Your task to perform on an android device: Search for the best deal on a 3d printer on aliexpress Image 0: 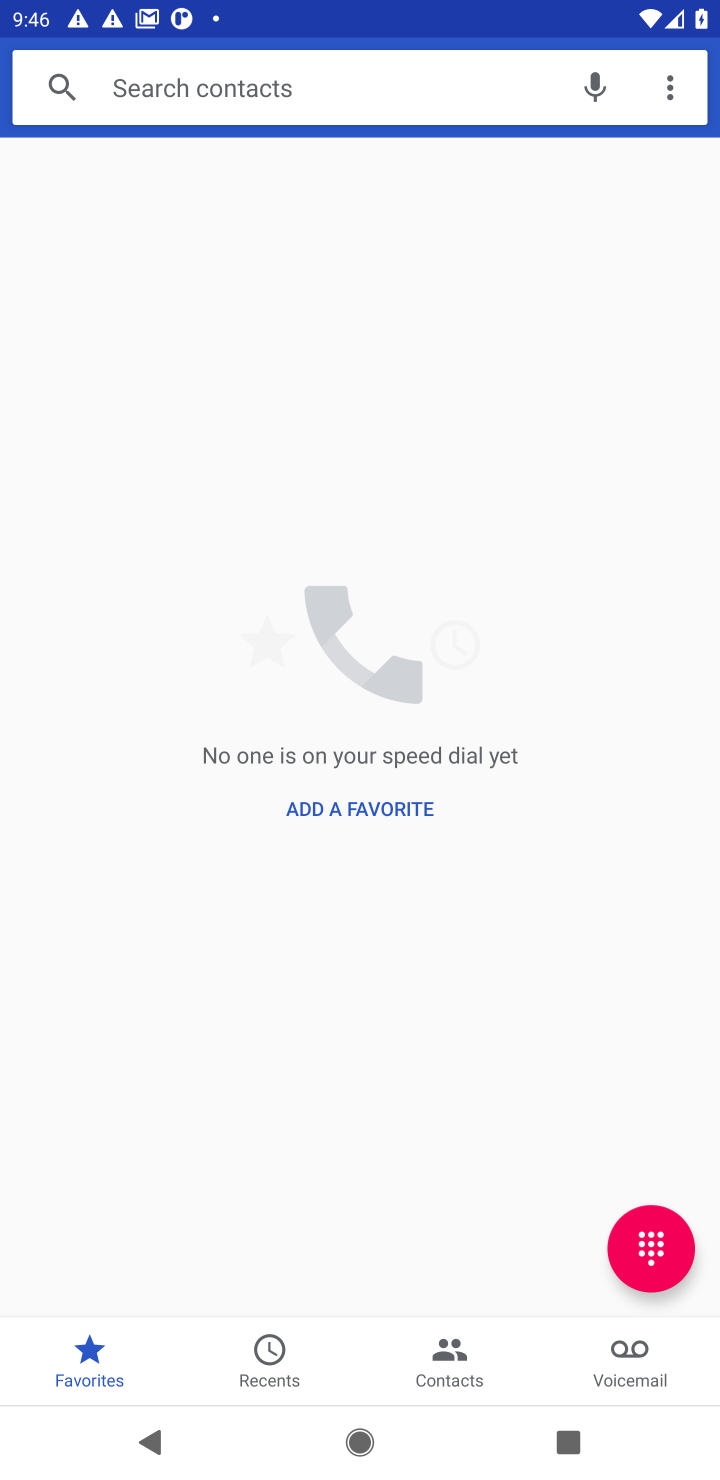
Step 0: press home button
Your task to perform on an android device: Search for the best deal on a 3d printer on aliexpress Image 1: 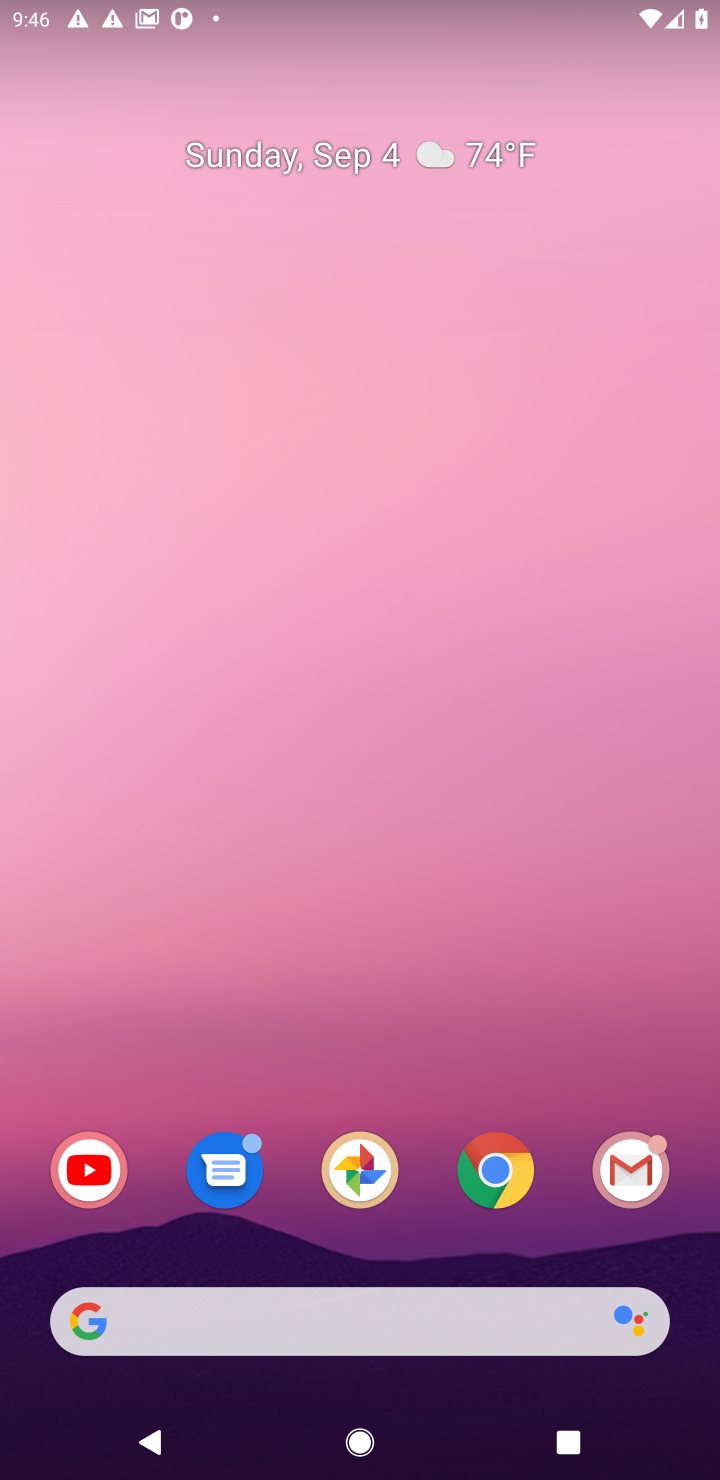
Step 1: click (485, 1167)
Your task to perform on an android device: Search for the best deal on a 3d printer on aliexpress Image 2: 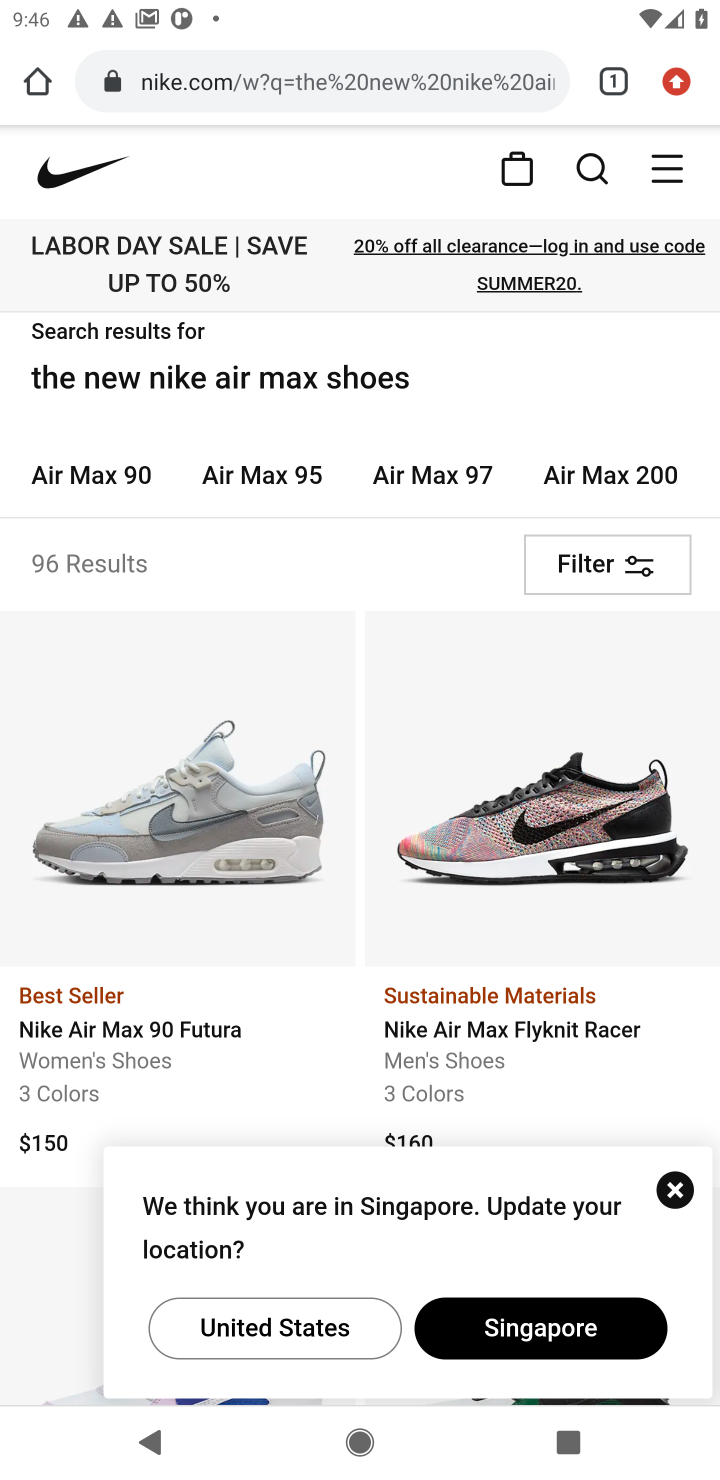
Step 2: click (284, 85)
Your task to perform on an android device: Search for the best deal on a 3d printer on aliexpress Image 3: 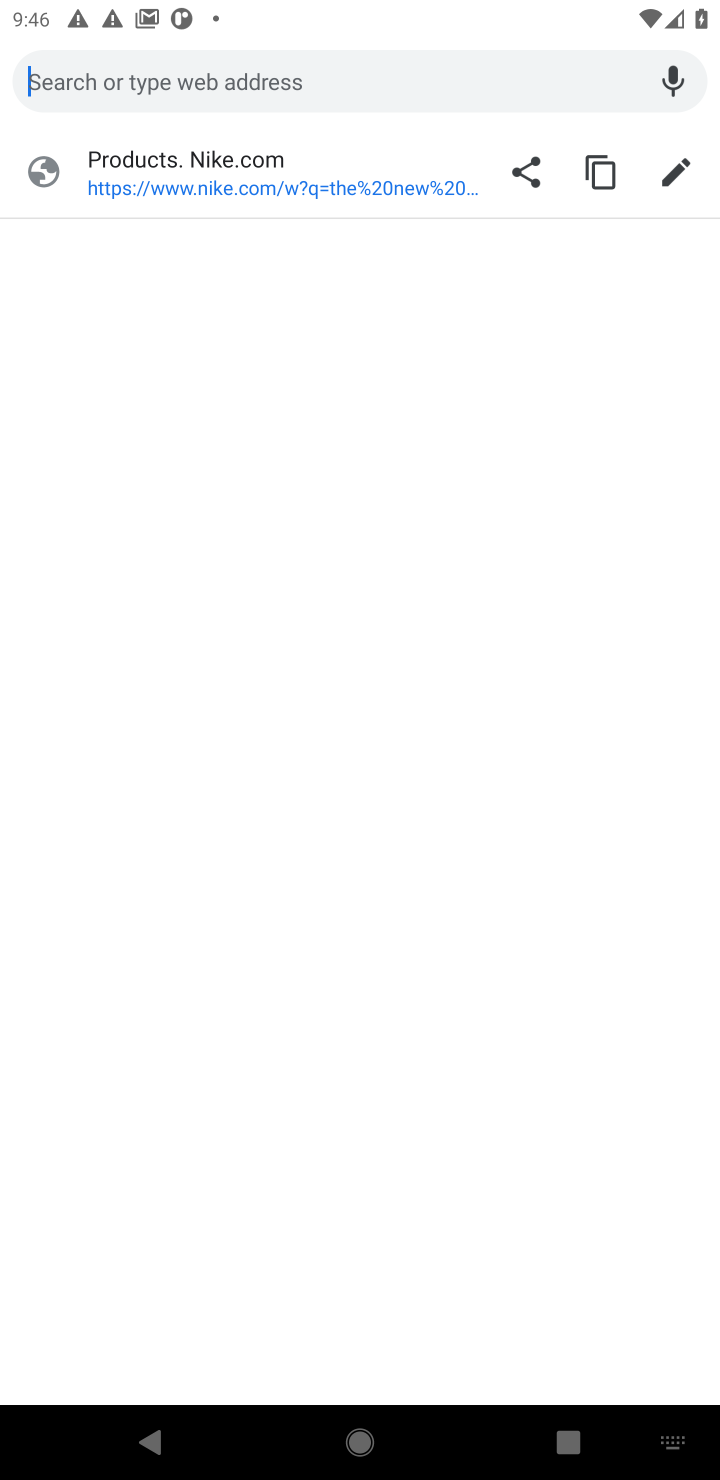
Step 3: type "AliExpress"
Your task to perform on an android device: Search for the best deal on a 3d printer on aliexpress Image 4: 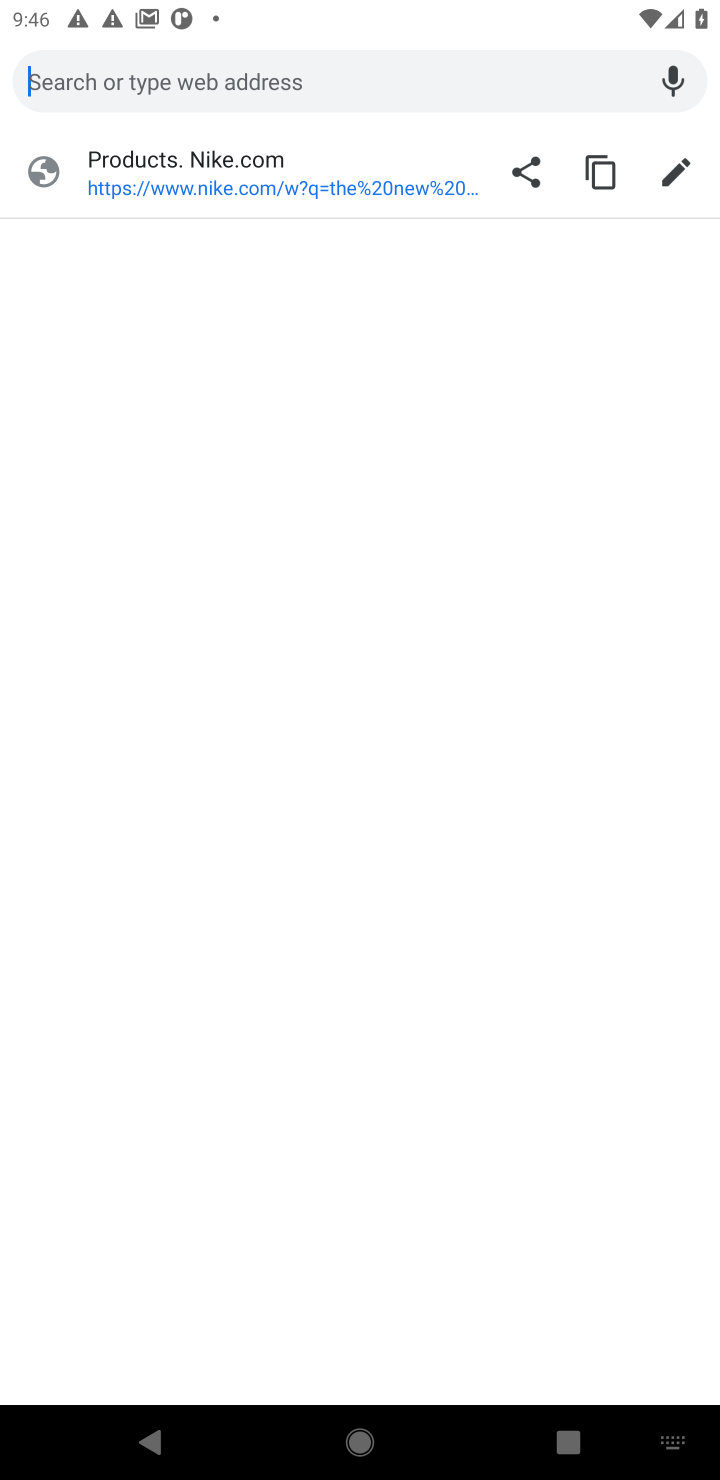
Step 4: click (260, 706)
Your task to perform on an android device: Search for the best deal on a 3d printer on aliexpress Image 5: 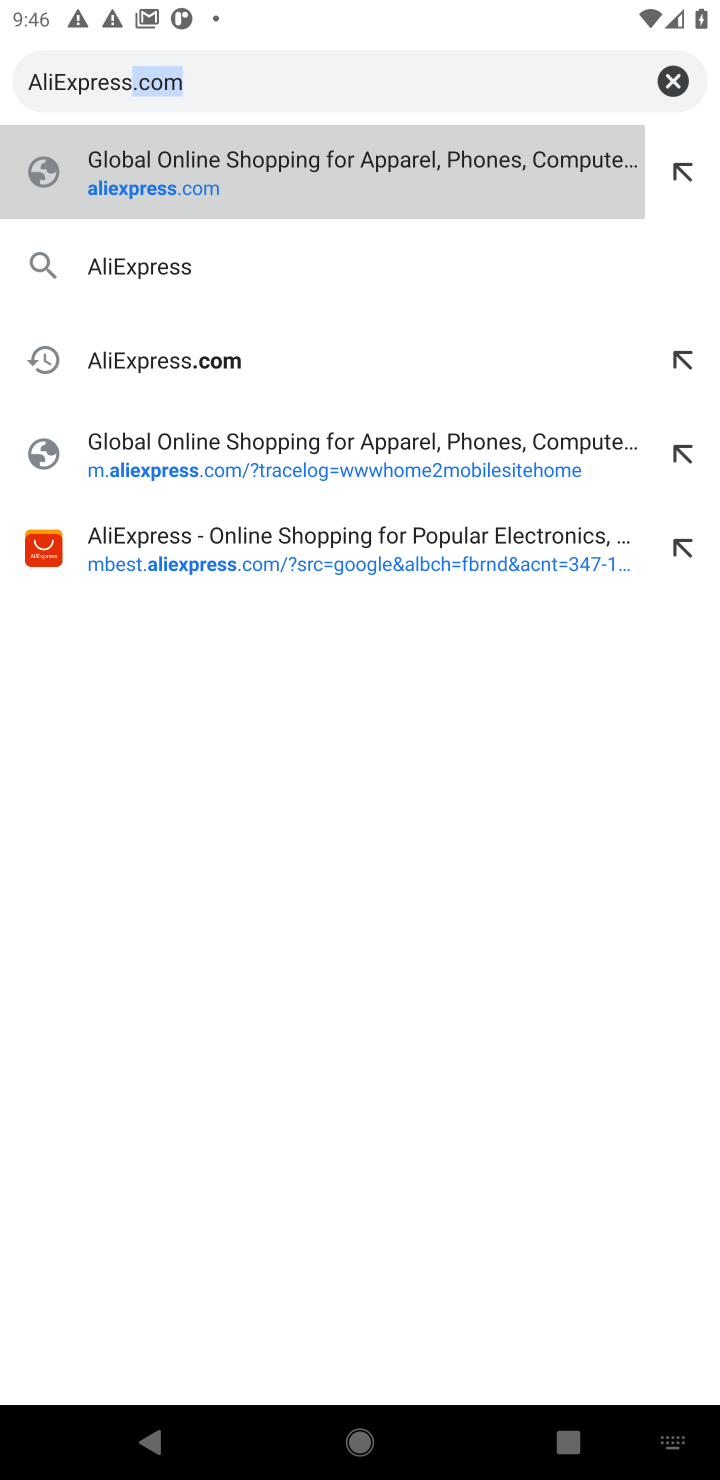
Step 5: click (178, 292)
Your task to perform on an android device: Search for the best deal on a 3d printer on aliexpress Image 6: 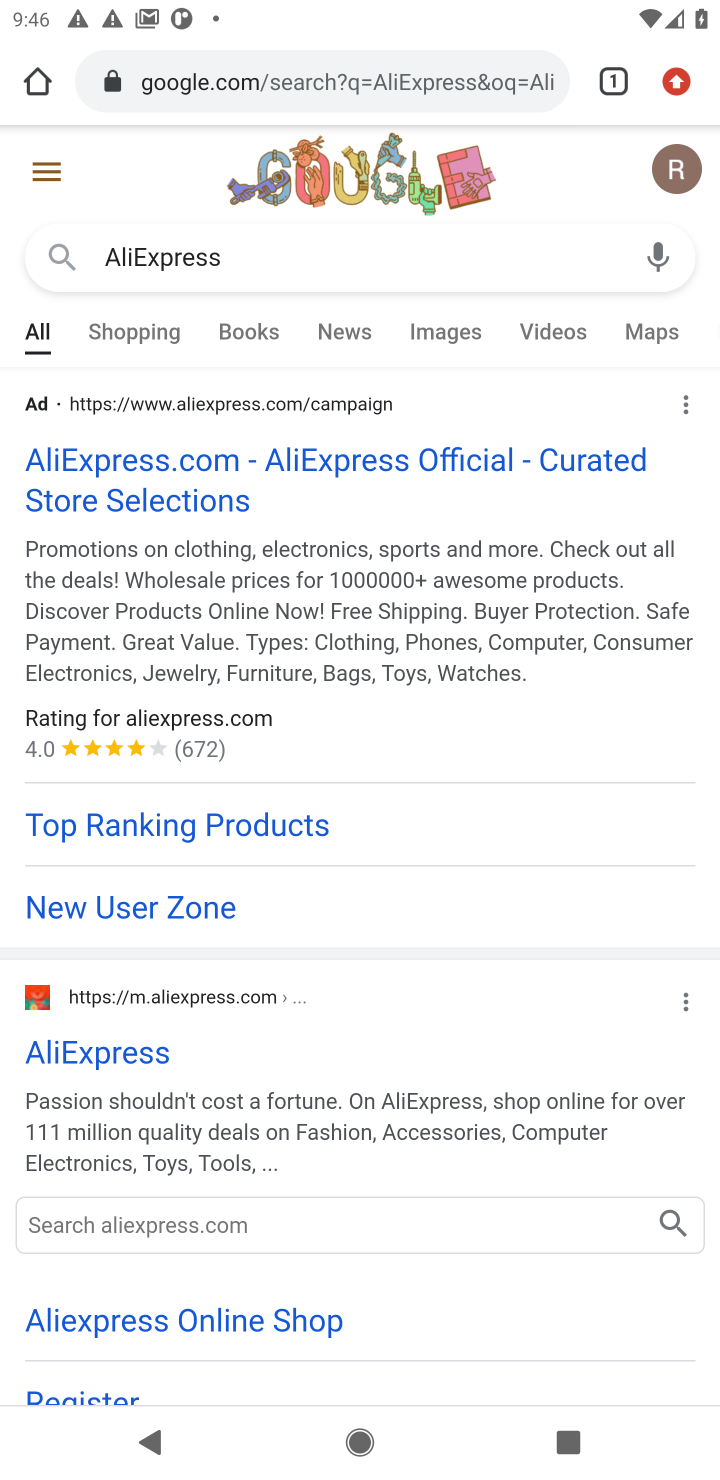
Step 6: click (50, 482)
Your task to perform on an android device: Search for the best deal on a 3d printer on aliexpress Image 7: 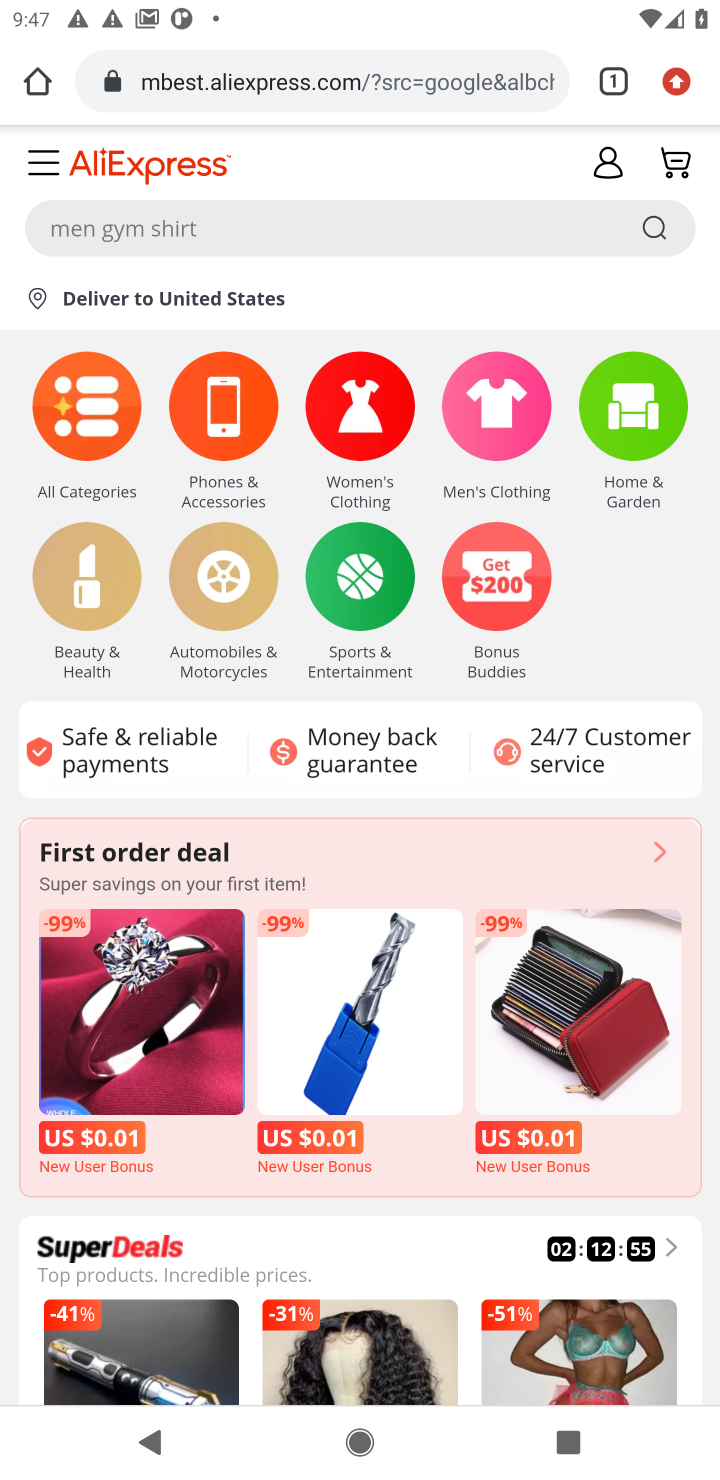
Step 7: click (50, 482)
Your task to perform on an android device: Search for the best deal on a 3d printer on aliexpress Image 8: 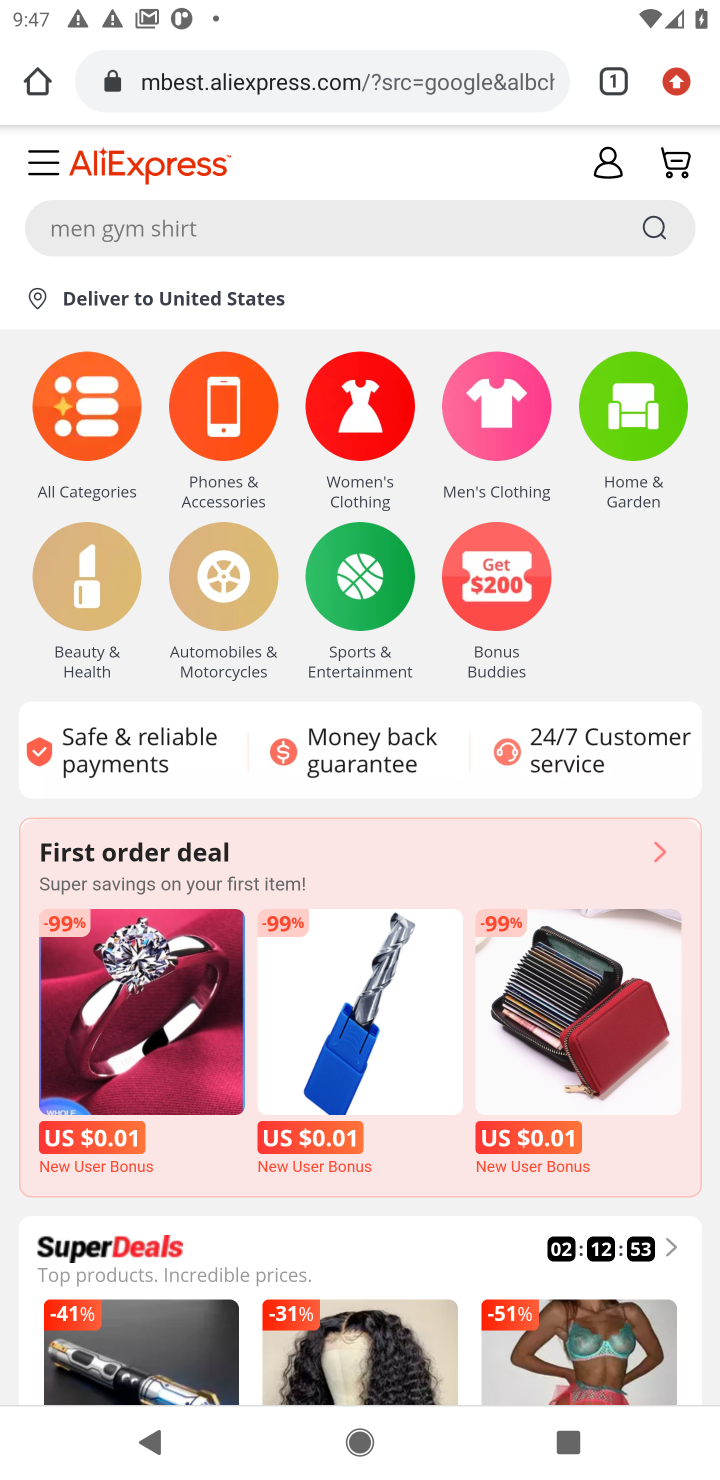
Step 8: click (375, 225)
Your task to perform on an android device: Search for the best deal on a 3d printer on aliexpress Image 9: 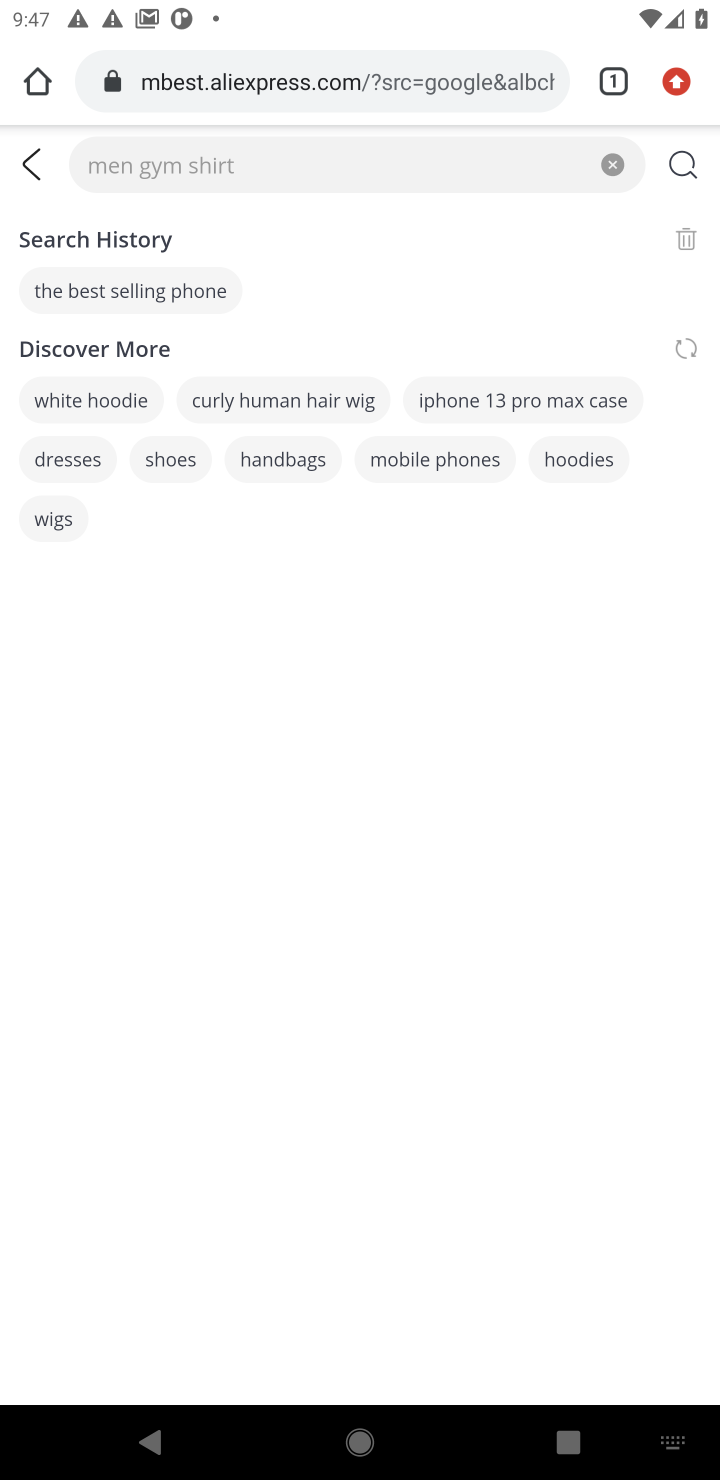
Step 9: type "3D Printers"
Your task to perform on an android device: Search for the best deal on a 3d printer on aliexpress Image 10: 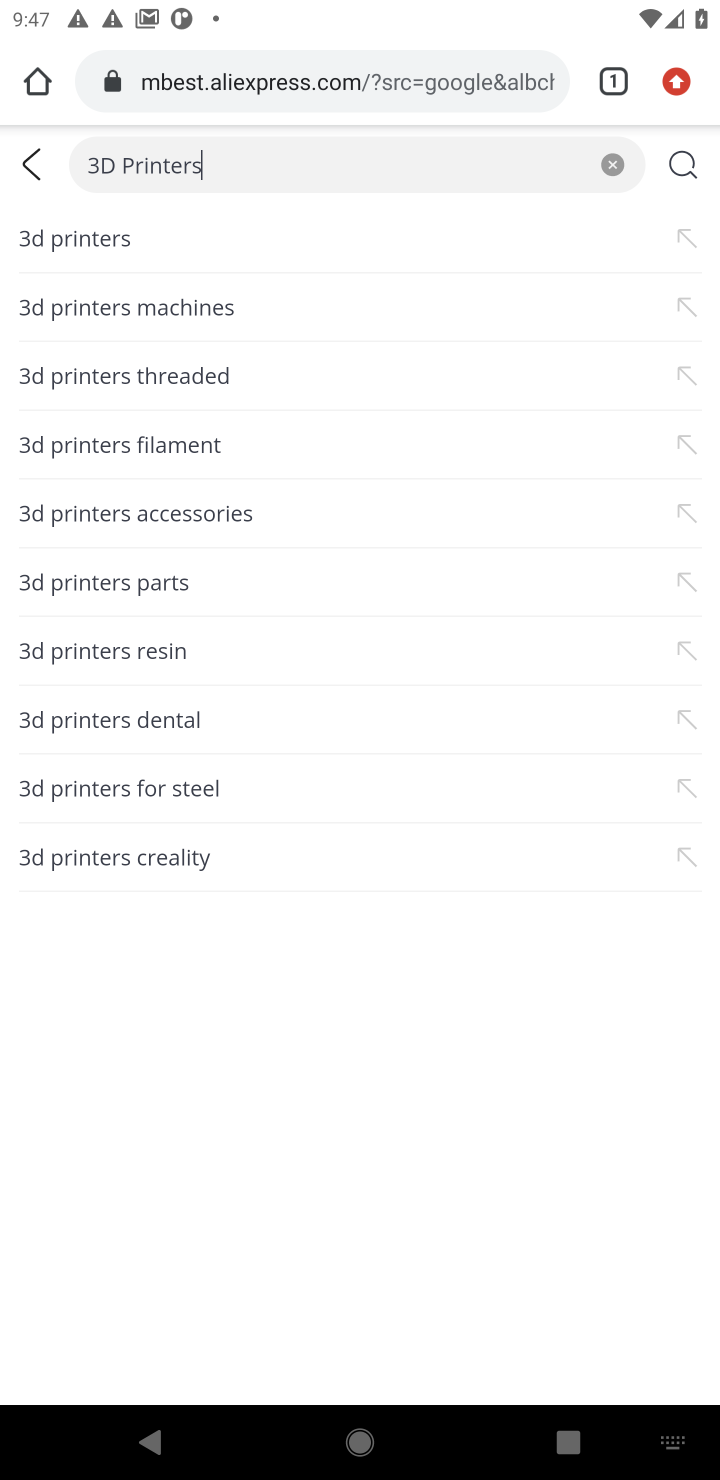
Step 10: click (172, 234)
Your task to perform on an android device: Search for the best deal on a 3d printer on aliexpress Image 11: 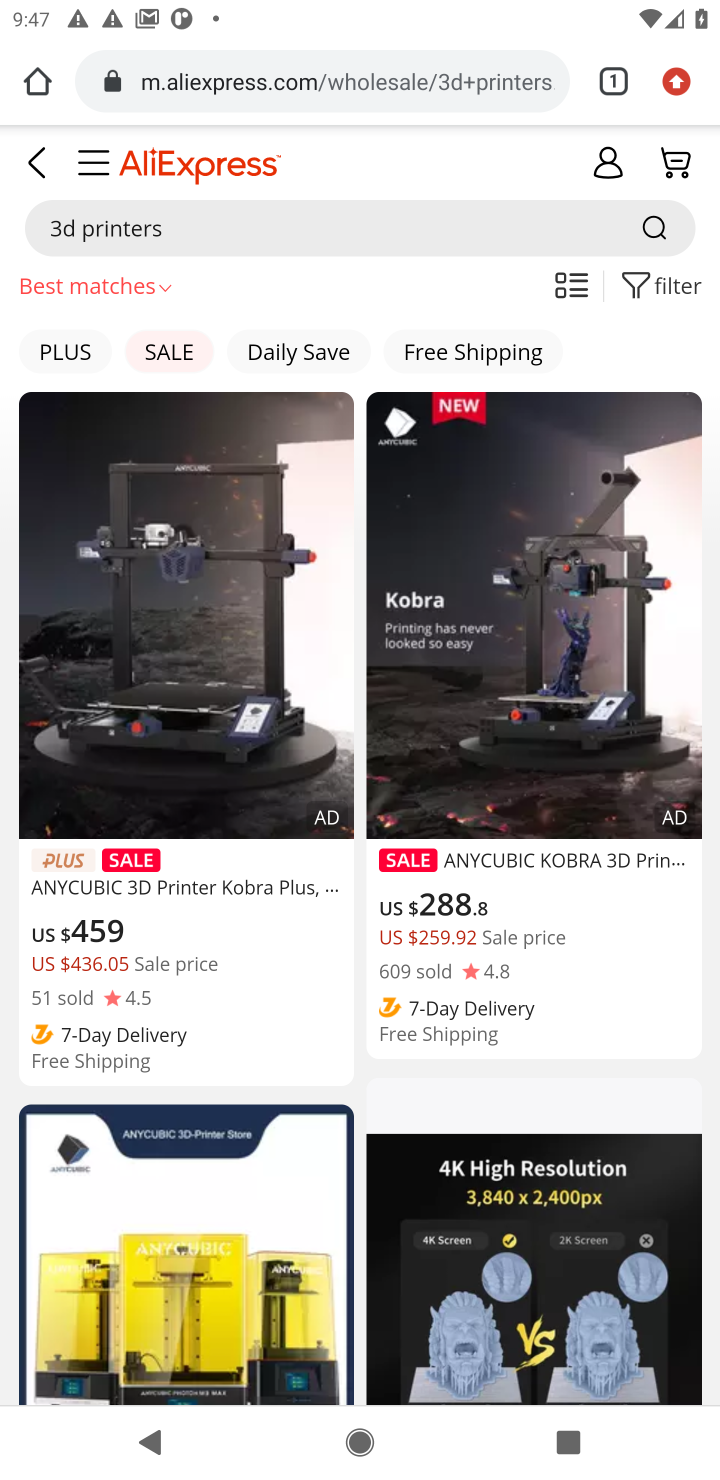
Step 11: task complete